Your task to perform on an android device: Open the stopwatch Image 0: 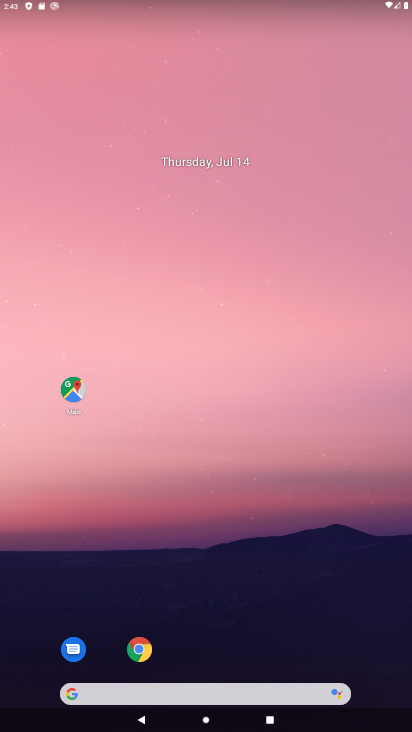
Step 0: drag from (235, 625) to (318, 214)
Your task to perform on an android device: Open the stopwatch Image 1: 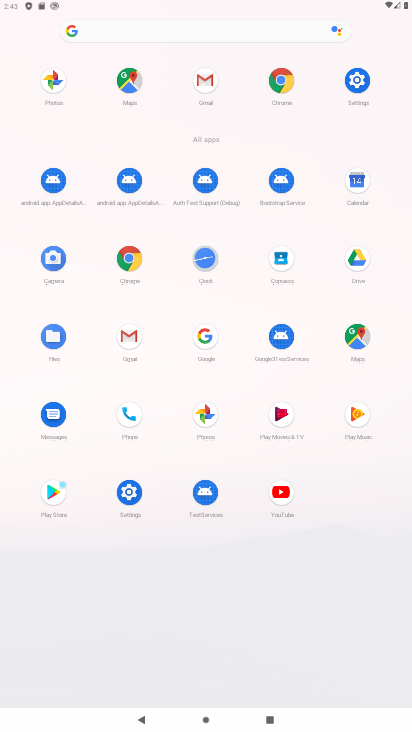
Step 1: click (205, 256)
Your task to perform on an android device: Open the stopwatch Image 2: 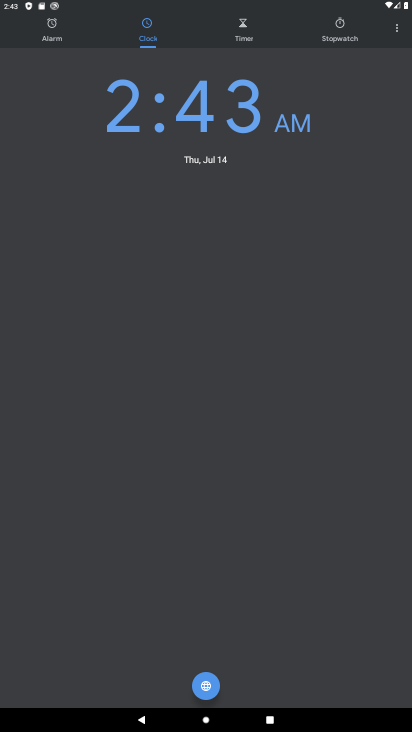
Step 2: click (346, 37)
Your task to perform on an android device: Open the stopwatch Image 3: 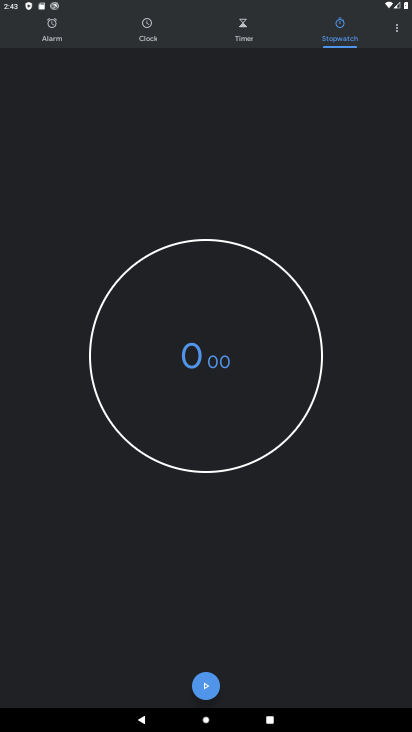
Step 3: click (154, 361)
Your task to perform on an android device: Open the stopwatch Image 4: 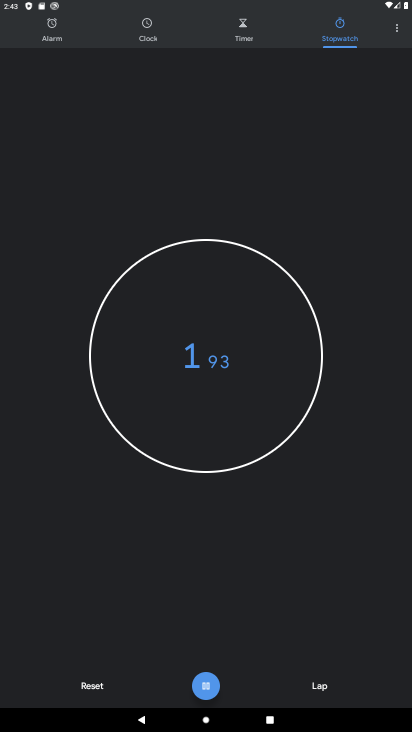
Step 4: task complete